Your task to perform on an android device: Check the weather Image 0: 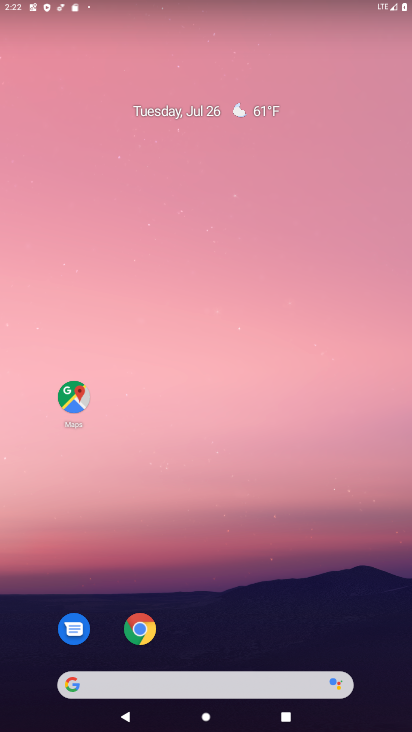
Step 0: click (176, 682)
Your task to perform on an android device: Check the weather Image 1: 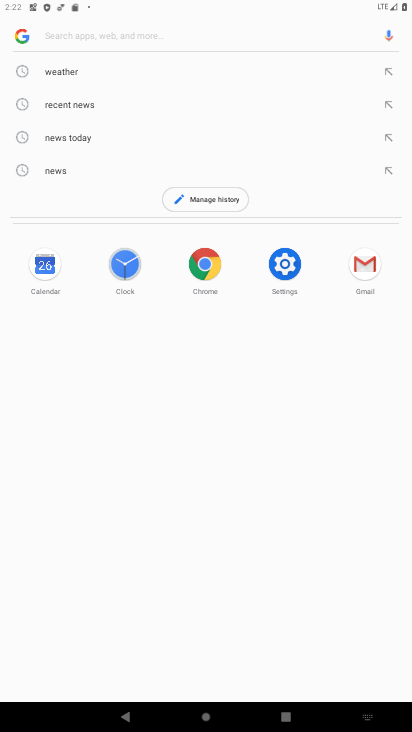
Step 1: click (63, 68)
Your task to perform on an android device: Check the weather Image 2: 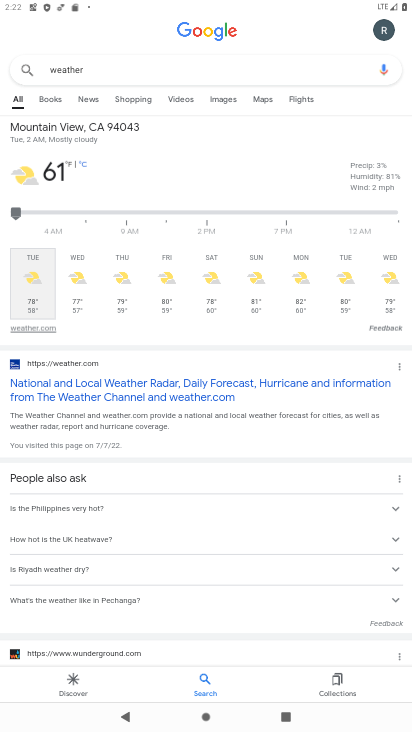
Step 2: task complete